Your task to perform on an android device: create a new album in the google photos Image 0: 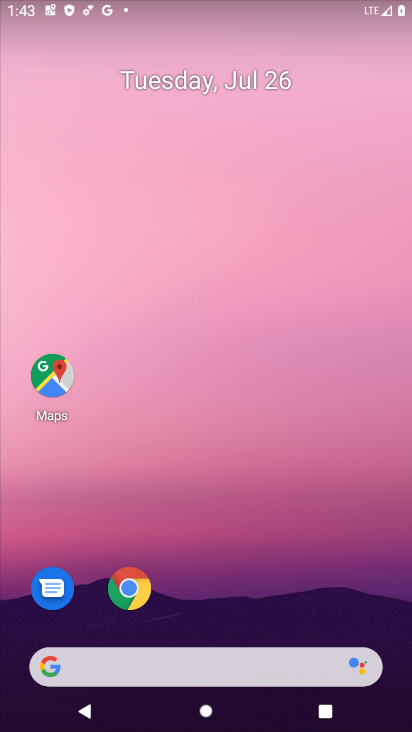
Step 0: press home button
Your task to perform on an android device: create a new album in the google photos Image 1: 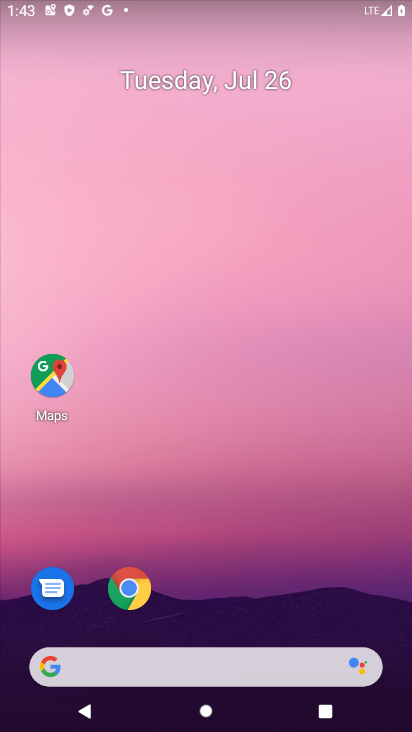
Step 1: click (129, 611)
Your task to perform on an android device: create a new album in the google photos Image 2: 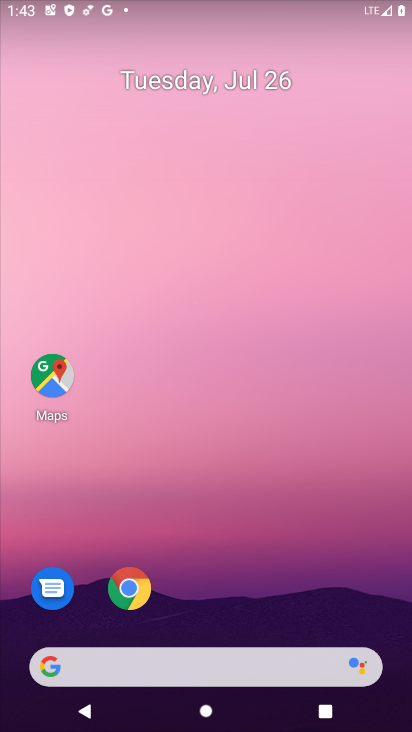
Step 2: drag from (230, 642) to (170, 75)
Your task to perform on an android device: create a new album in the google photos Image 3: 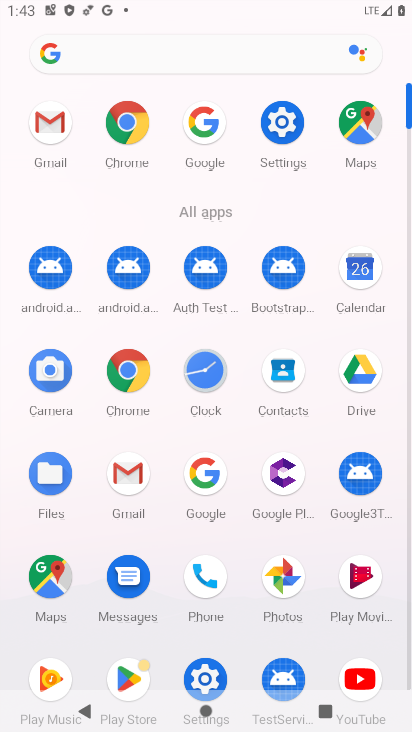
Step 3: click (293, 580)
Your task to perform on an android device: create a new album in the google photos Image 4: 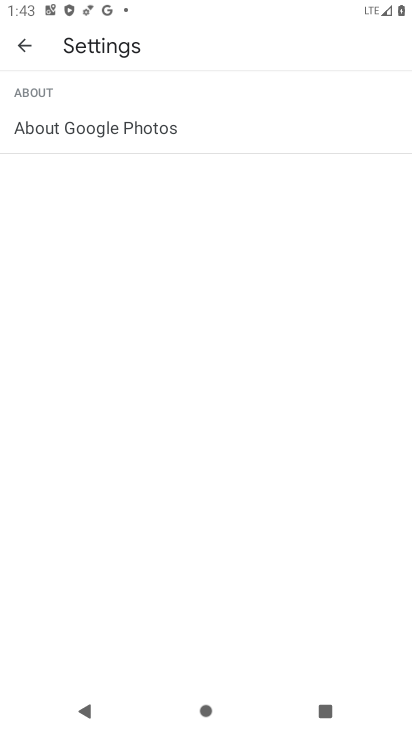
Step 4: click (21, 37)
Your task to perform on an android device: create a new album in the google photos Image 5: 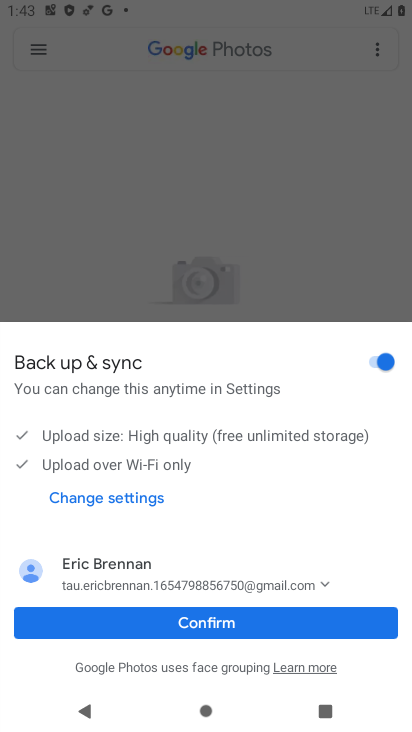
Step 5: click (204, 622)
Your task to perform on an android device: create a new album in the google photos Image 6: 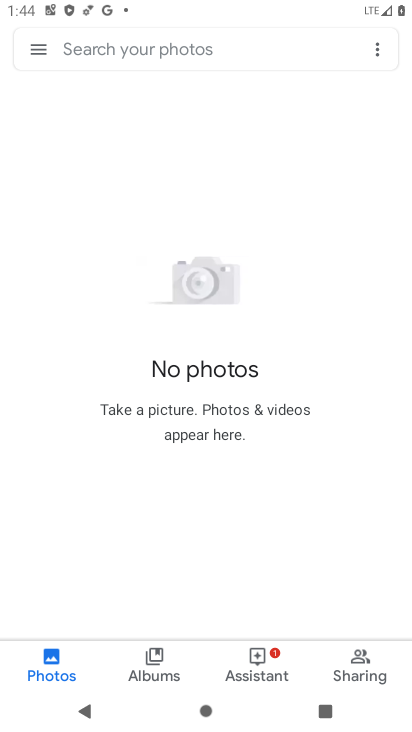
Step 6: click (157, 668)
Your task to perform on an android device: create a new album in the google photos Image 7: 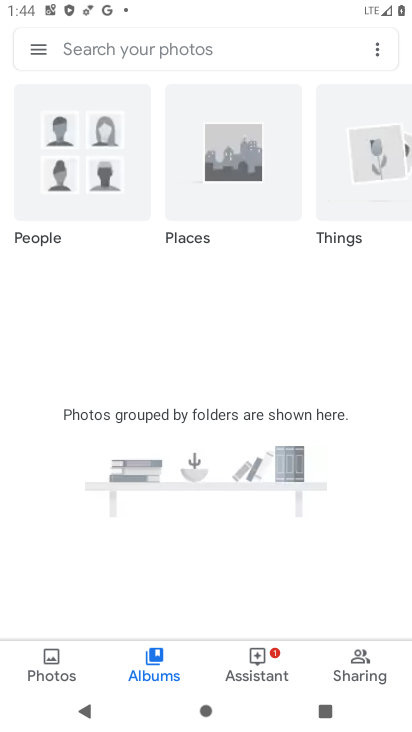
Step 7: click (260, 51)
Your task to perform on an android device: create a new album in the google photos Image 8: 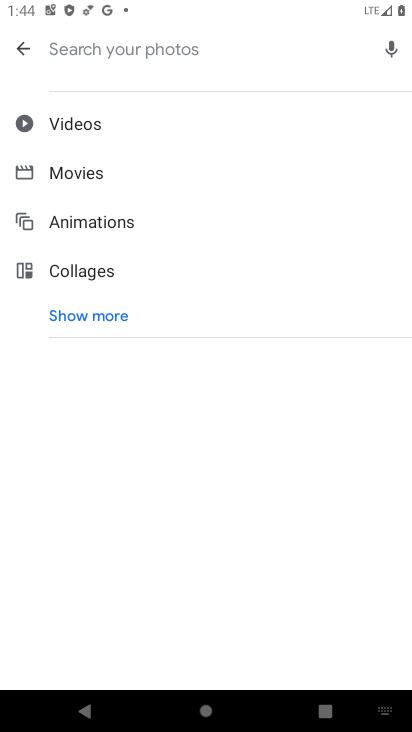
Step 8: task complete